Your task to perform on an android device: install app "Facebook Messenger" Image 0: 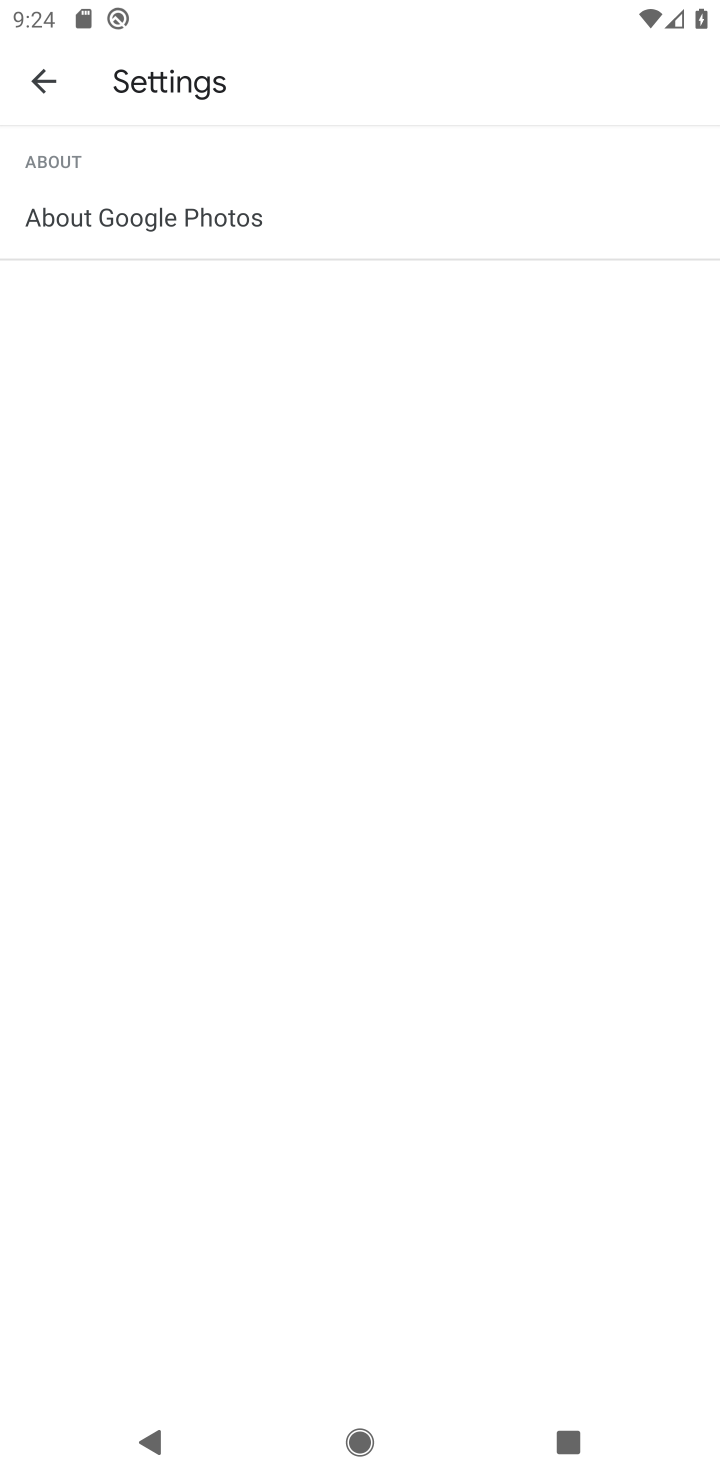
Step 0: press home button
Your task to perform on an android device: install app "Facebook Messenger" Image 1: 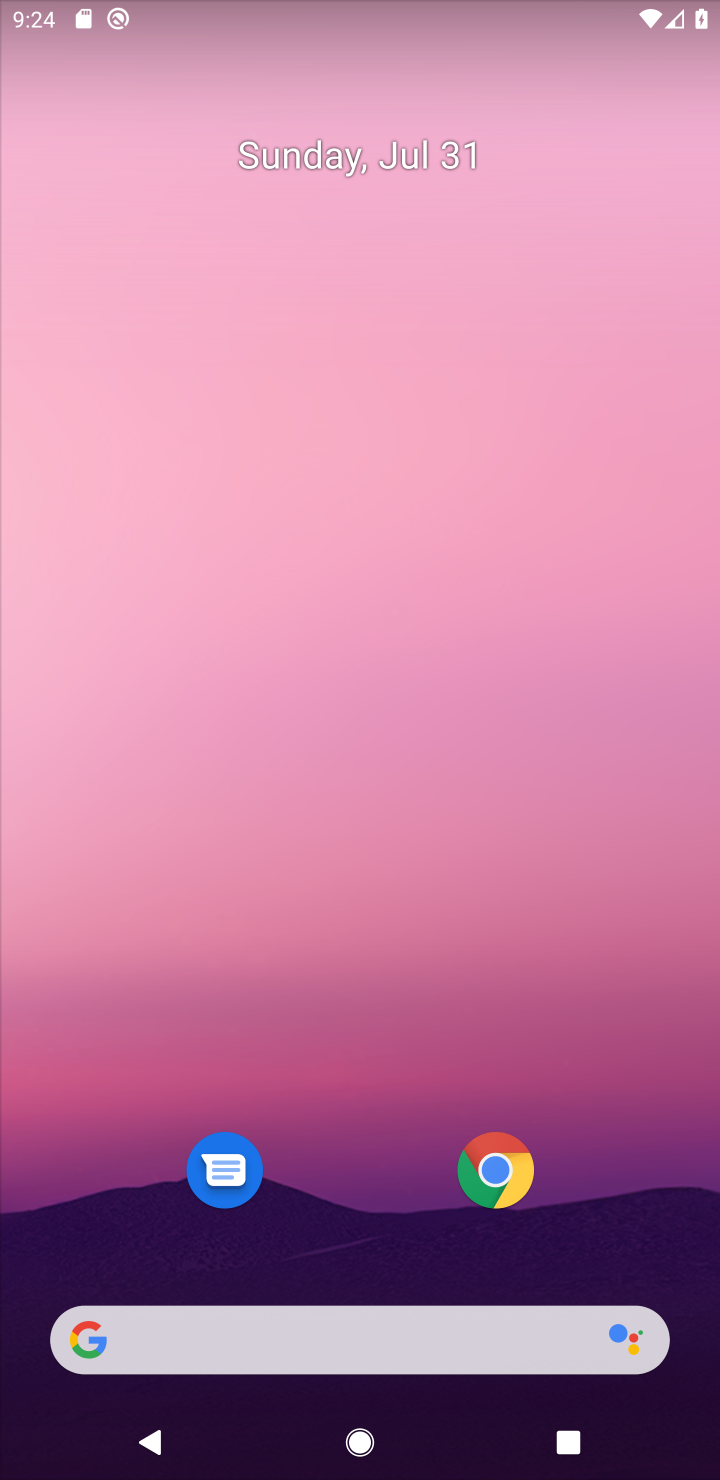
Step 1: drag from (589, 986) to (328, 119)
Your task to perform on an android device: install app "Facebook Messenger" Image 2: 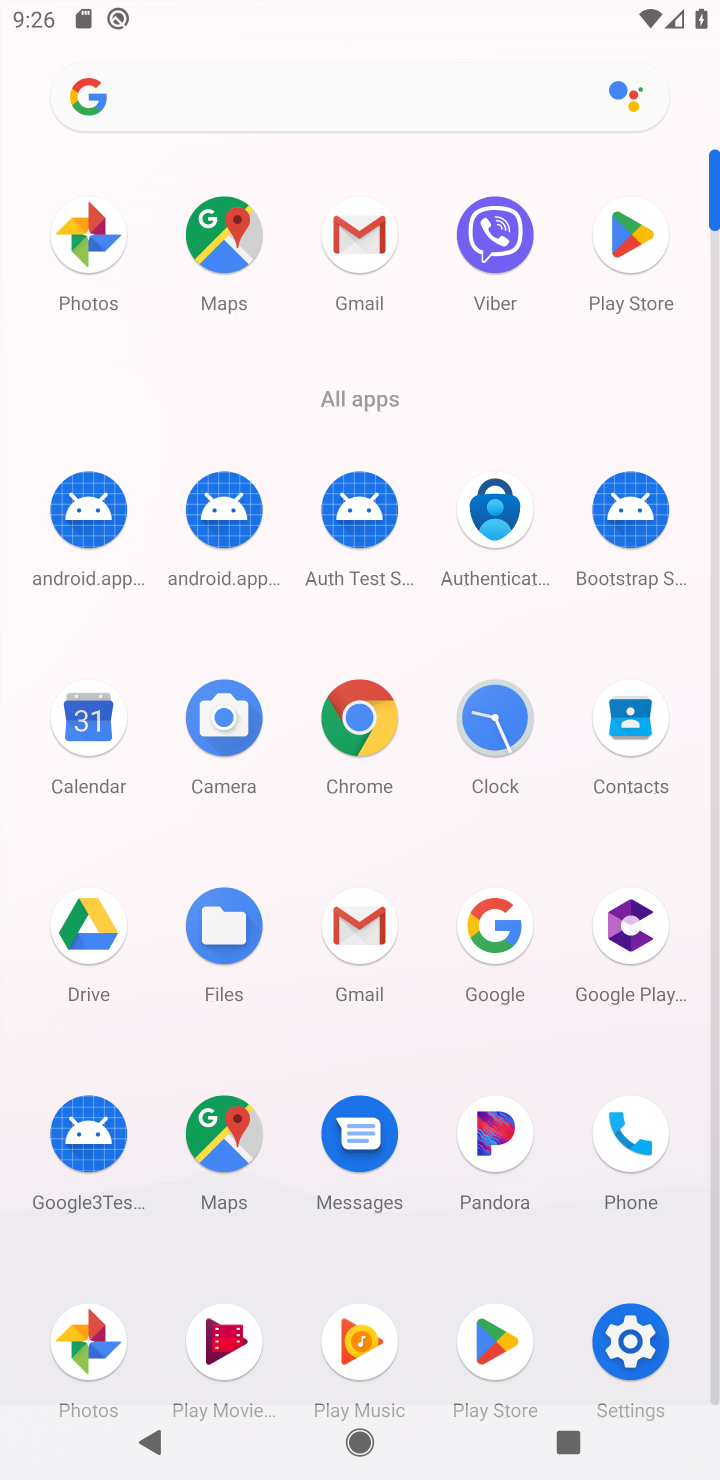
Step 2: click (612, 284)
Your task to perform on an android device: install app "Facebook Messenger" Image 3: 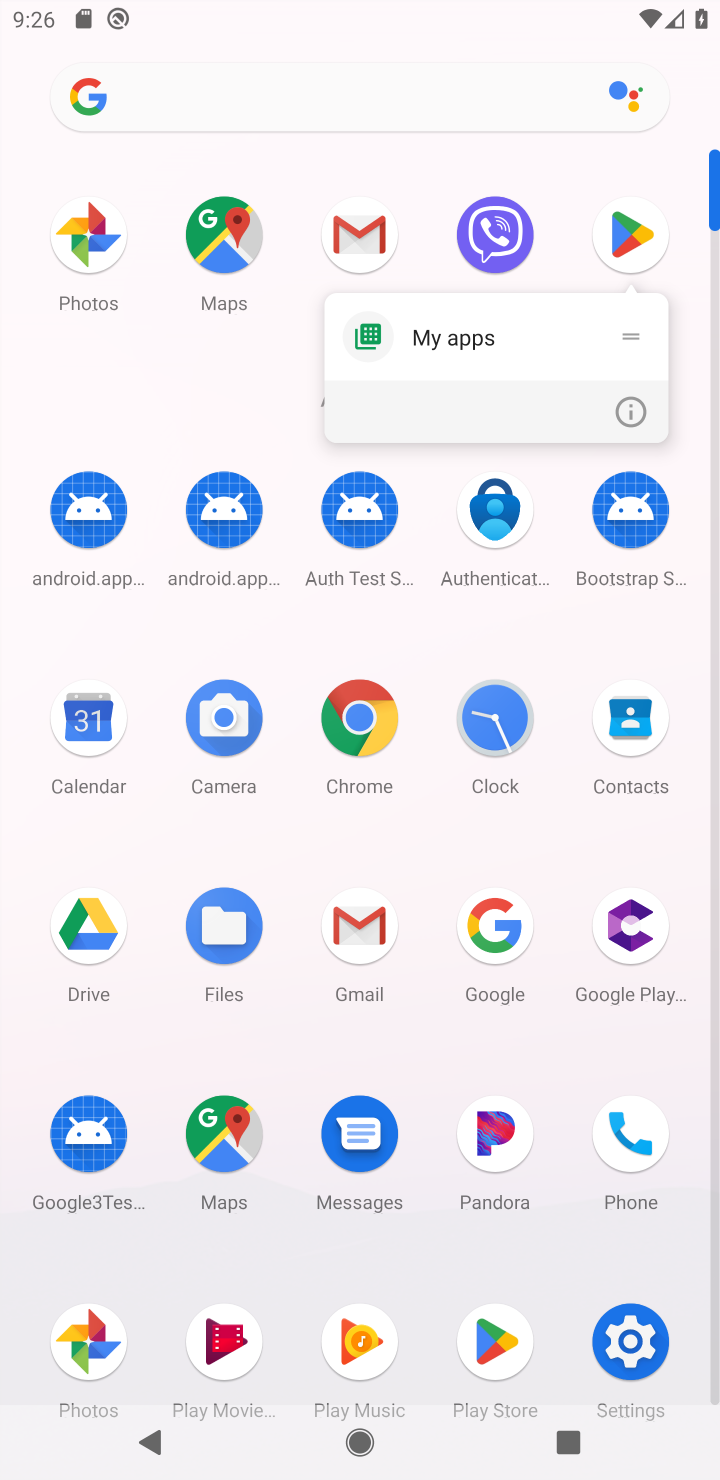
Step 3: click (628, 245)
Your task to perform on an android device: install app "Facebook Messenger" Image 4: 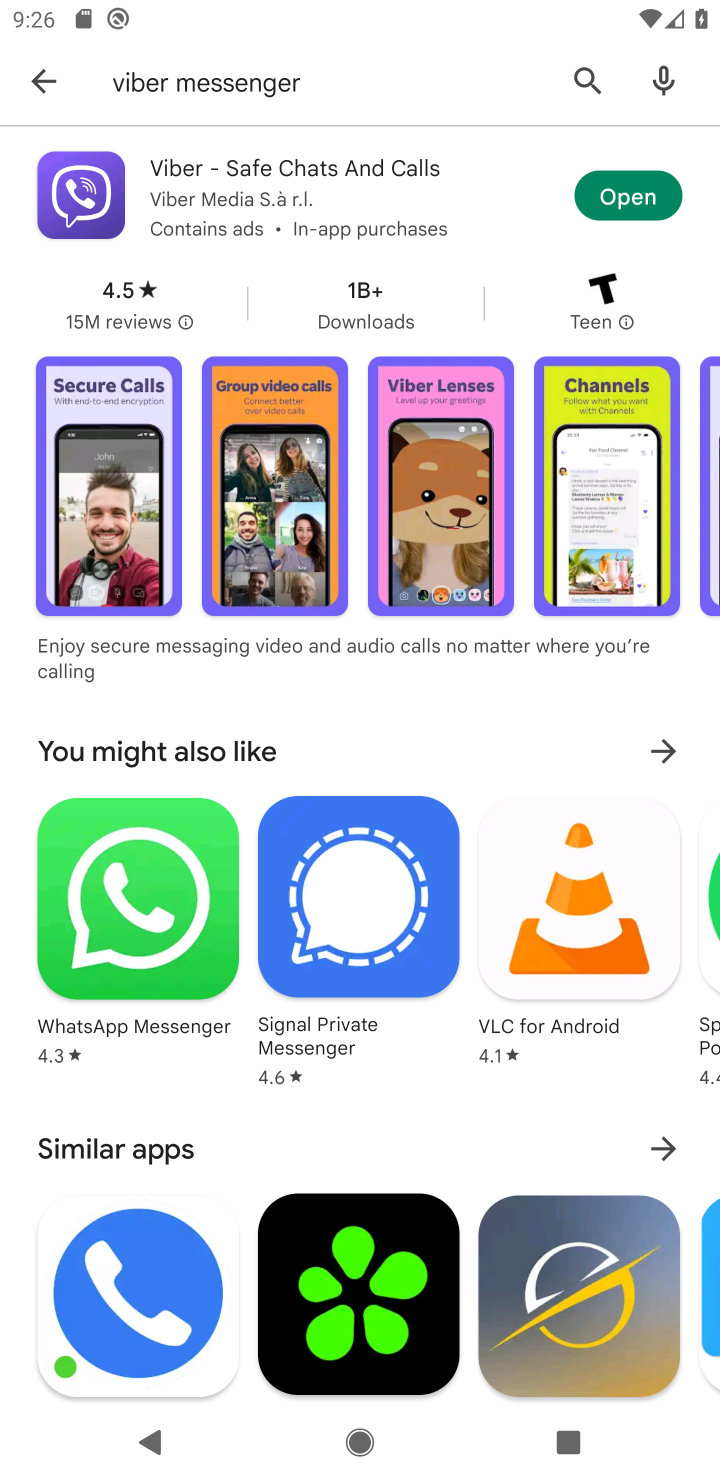
Step 4: press back button
Your task to perform on an android device: install app "Facebook Messenger" Image 5: 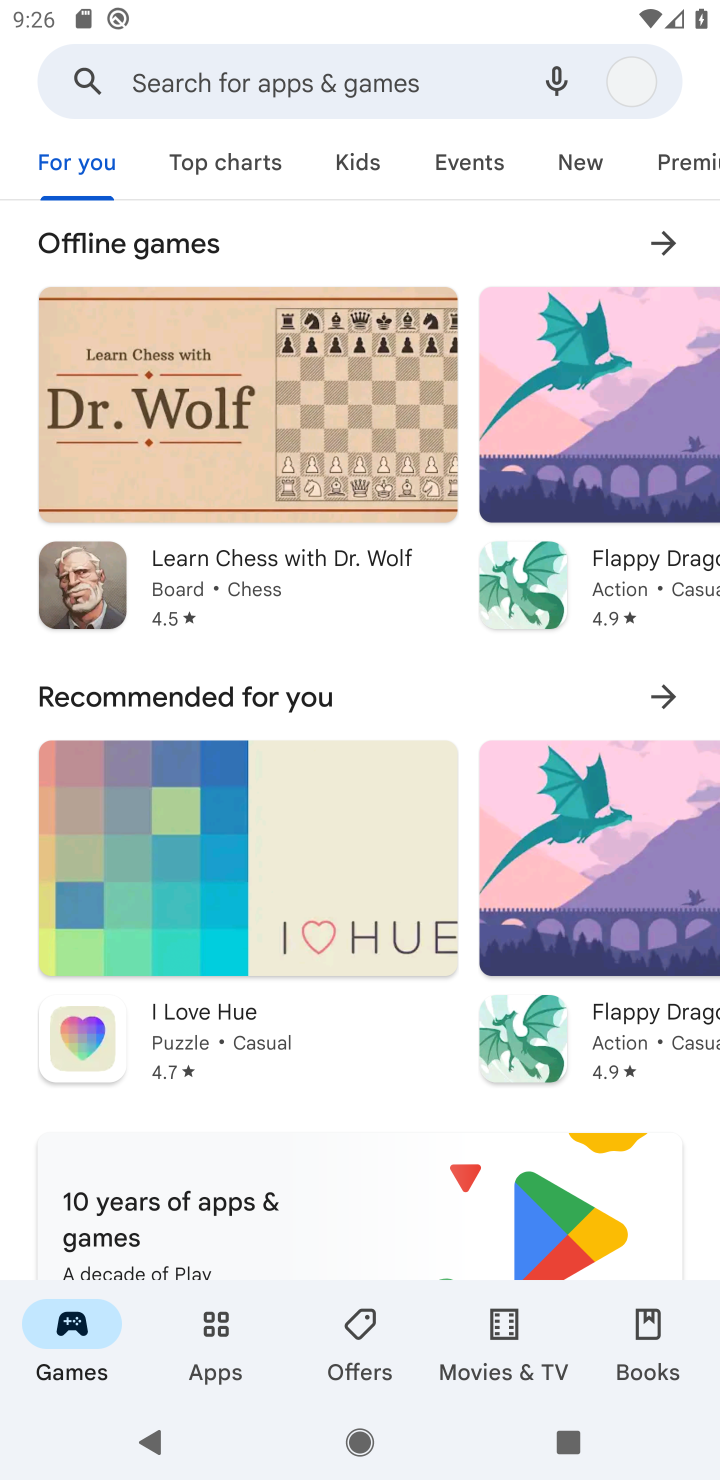
Step 5: click (207, 80)
Your task to perform on an android device: install app "Facebook Messenger" Image 6: 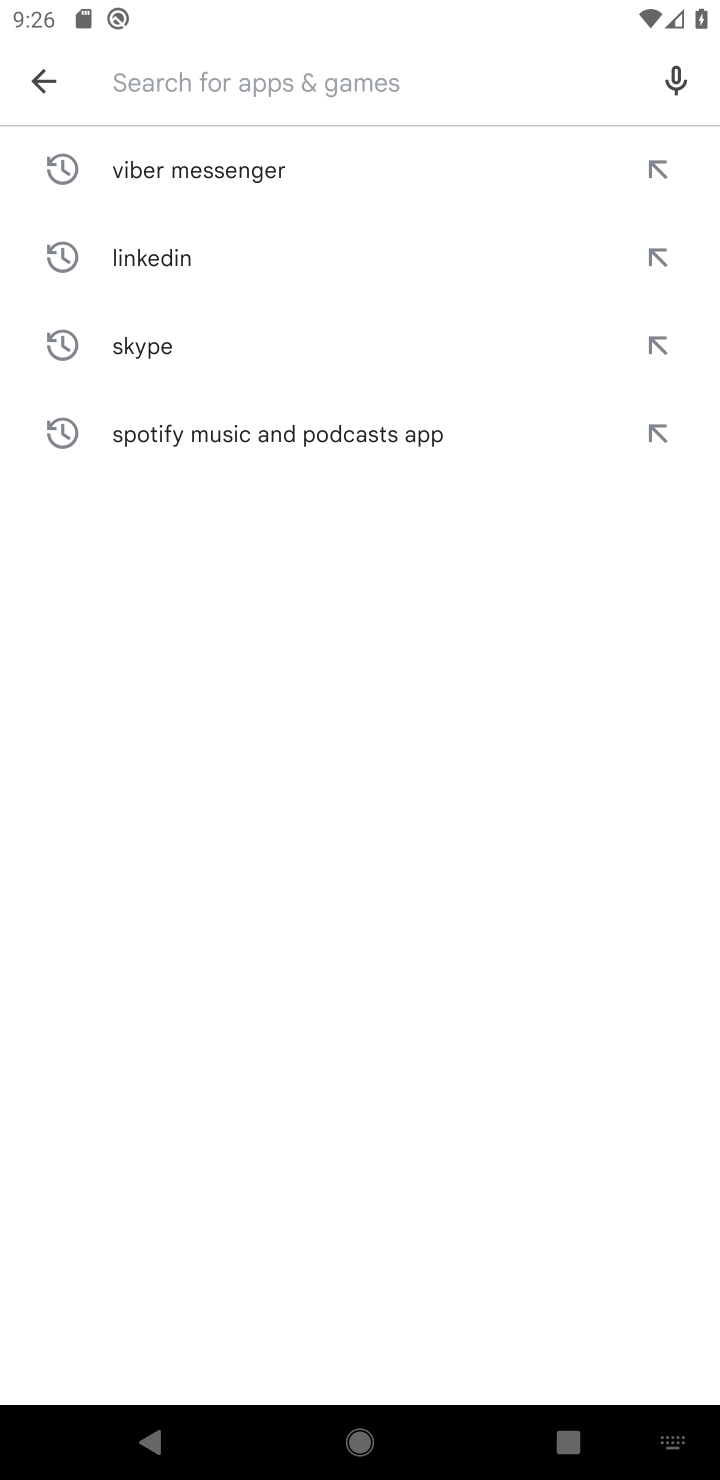
Step 6: type "Facebook Messenger"
Your task to perform on an android device: install app "Facebook Messenger" Image 7: 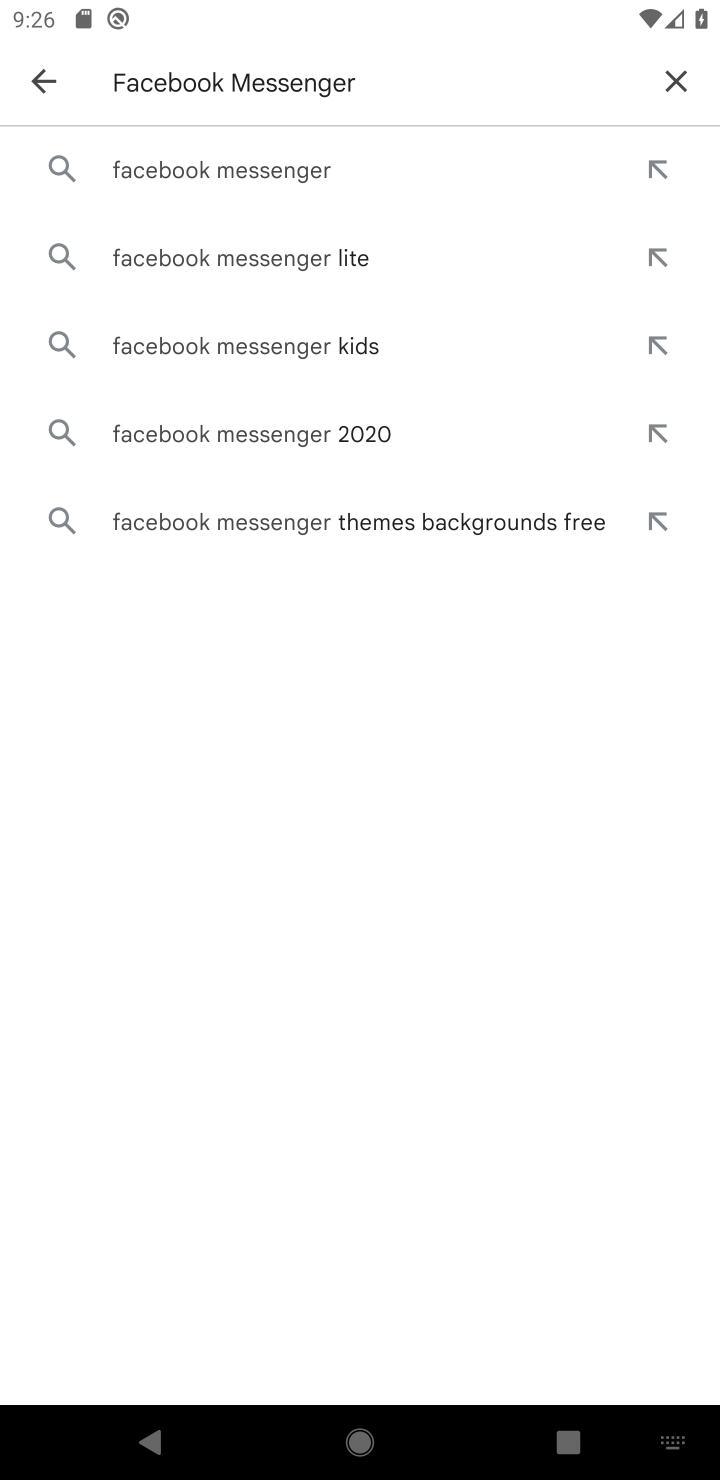
Step 7: click (217, 165)
Your task to perform on an android device: install app "Facebook Messenger" Image 8: 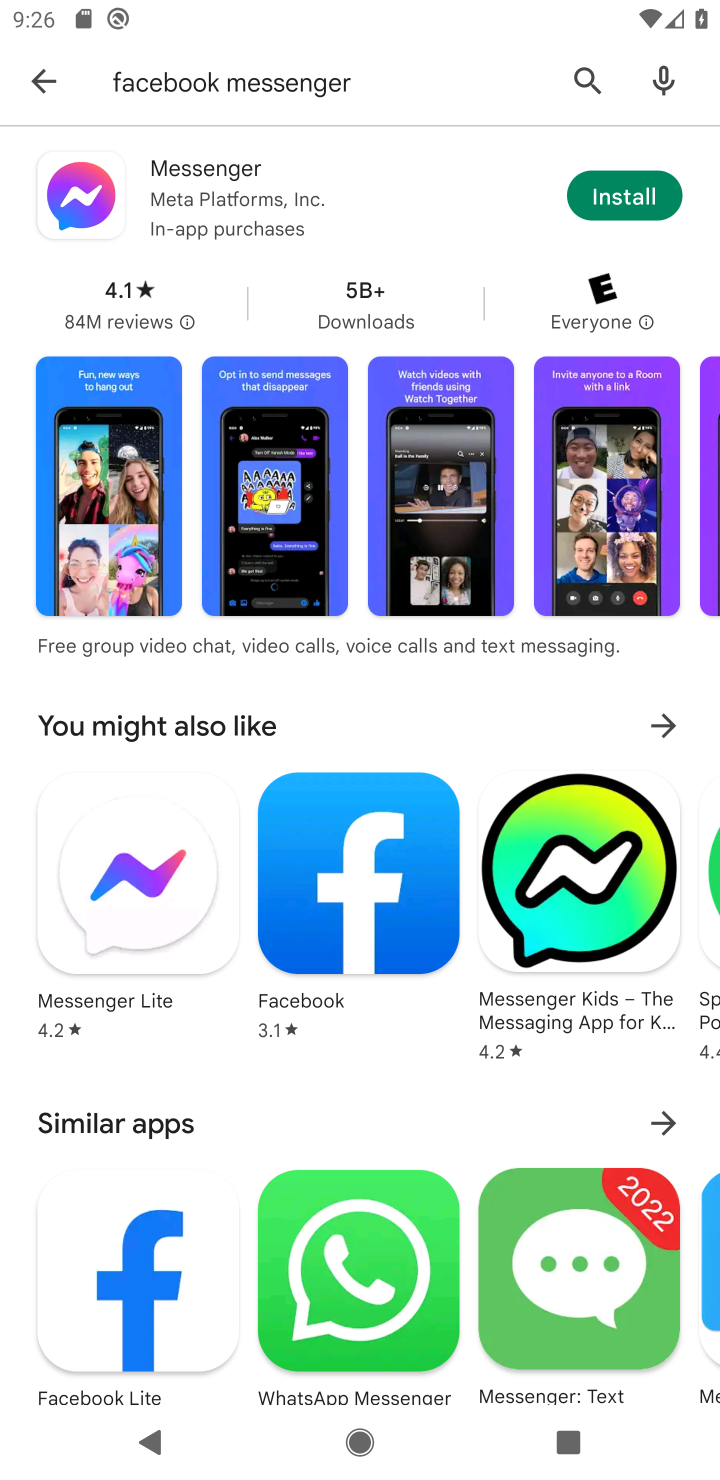
Step 8: click (641, 206)
Your task to perform on an android device: install app "Facebook Messenger" Image 9: 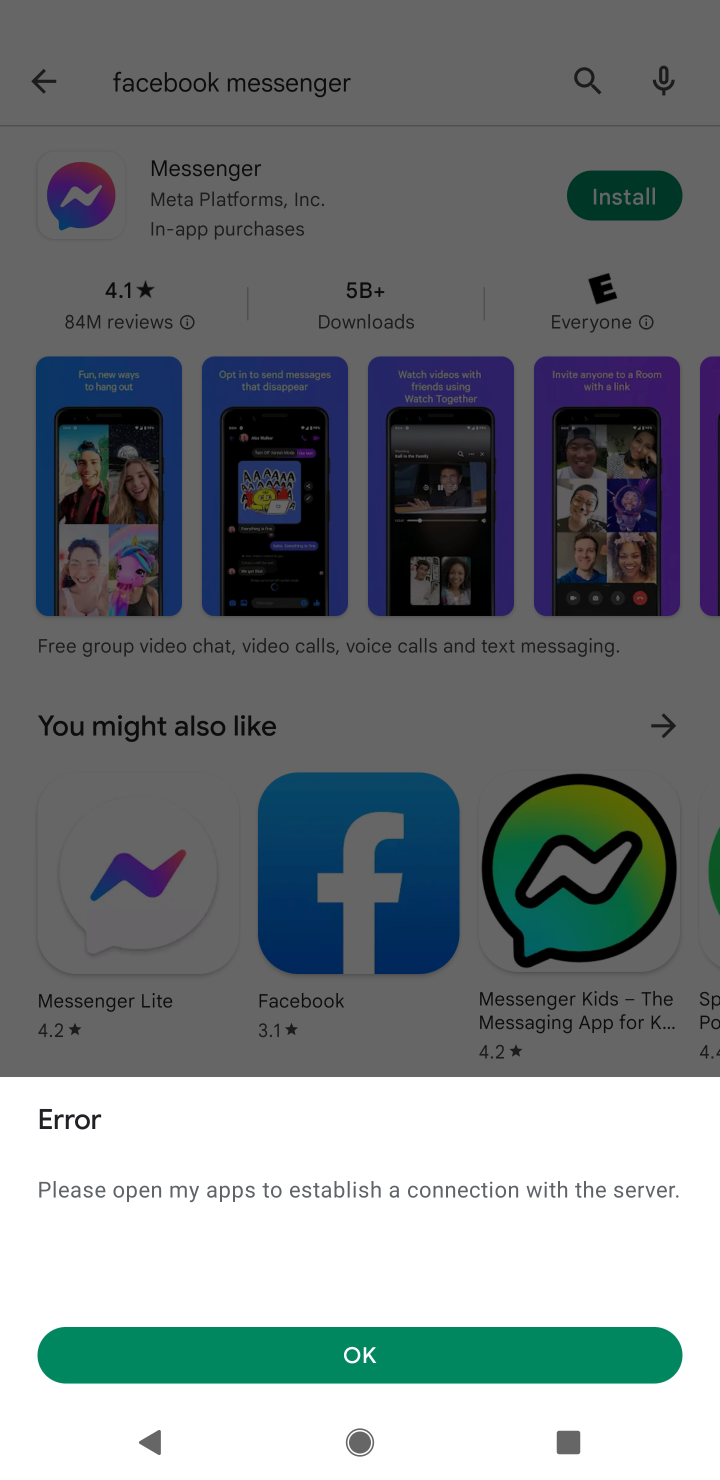
Step 9: task complete